Your task to perform on an android device: open wifi settings Image 0: 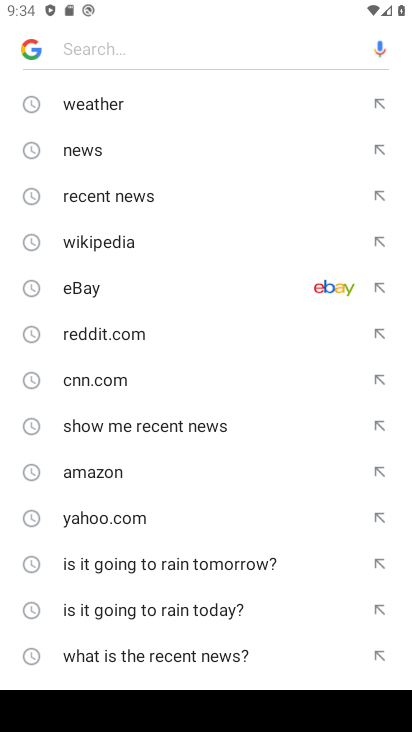
Step 0: press home button
Your task to perform on an android device: open wifi settings Image 1: 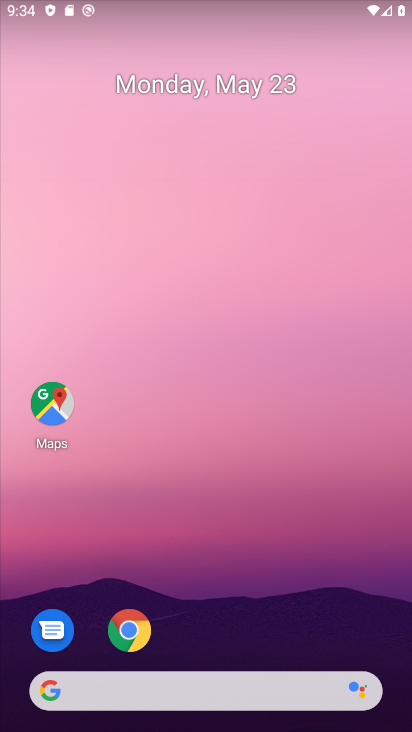
Step 1: drag from (190, 693) to (198, 343)
Your task to perform on an android device: open wifi settings Image 2: 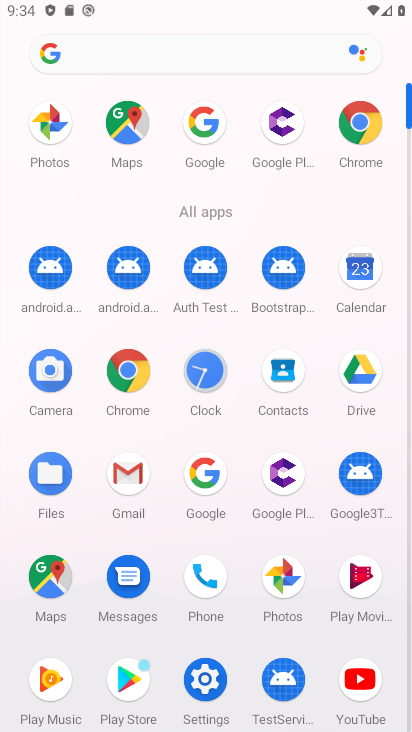
Step 2: click (198, 677)
Your task to perform on an android device: open wifi settings Image 3: 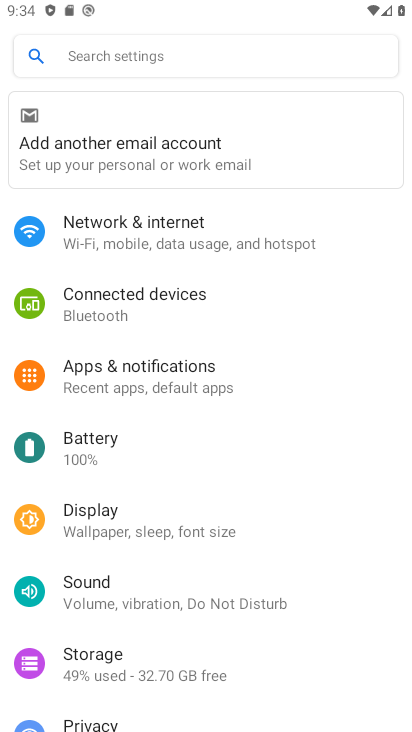
Step 3: click (127, 231)
Your task to perform on an android device: open wifi settings Image 4: 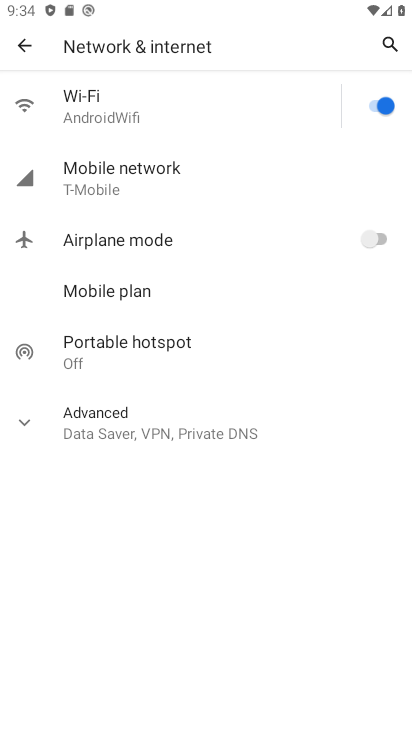
Step 4: click (121, 122)
Your task to perform on an android device: open wifi settings Image 5: 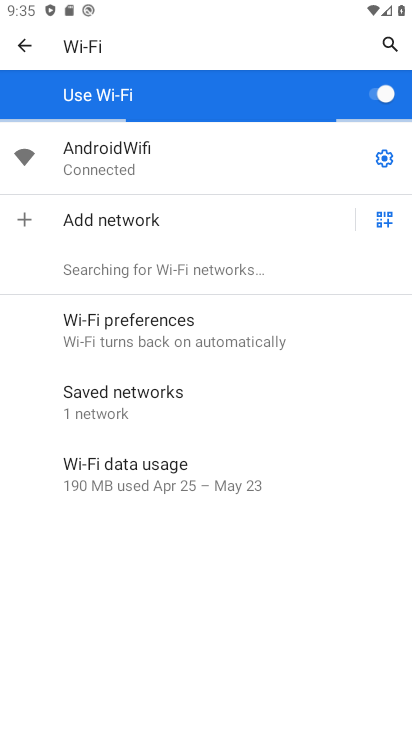
Step 5: task complete